Your task to perform on an android device: open app "Facebook Messenger" Image 0: 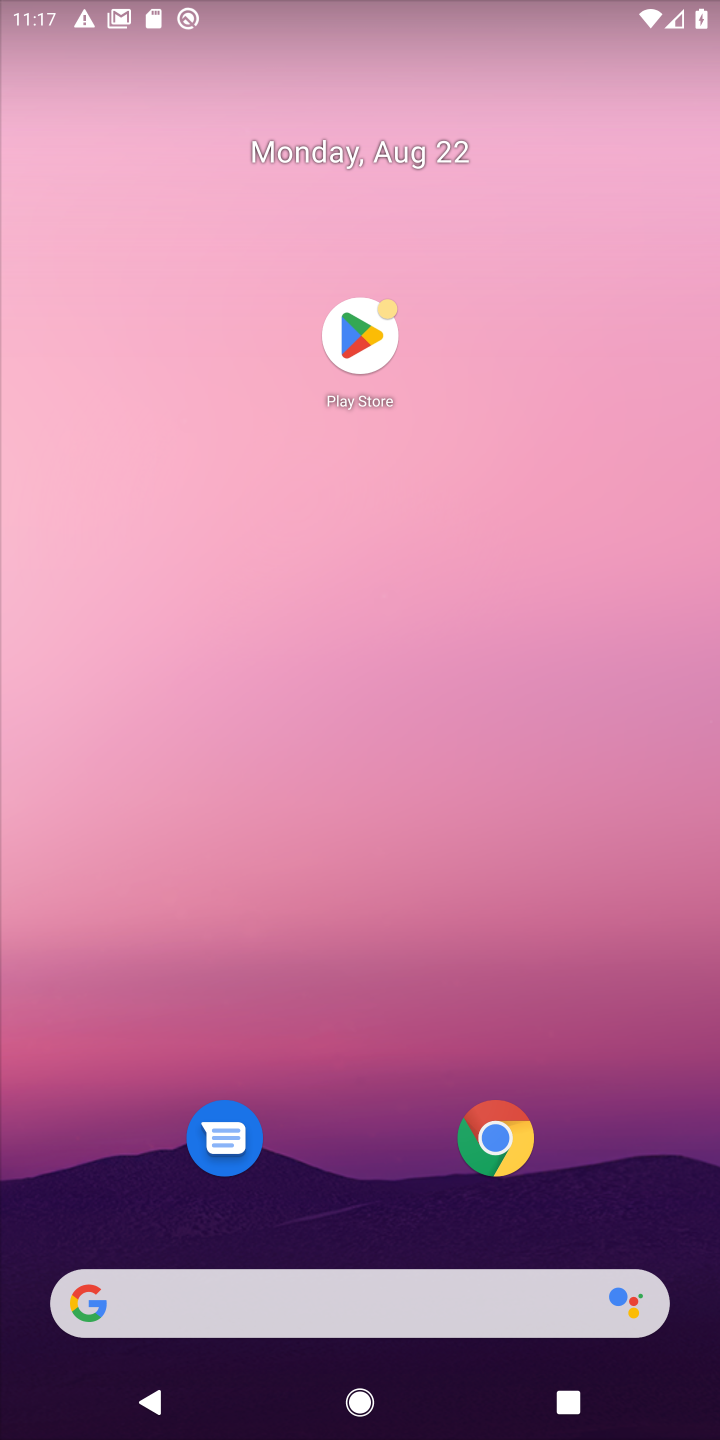
Step 0: click (354, 339)
Your task to perform on an android device: open app "Facebook Messenger" Image 1: 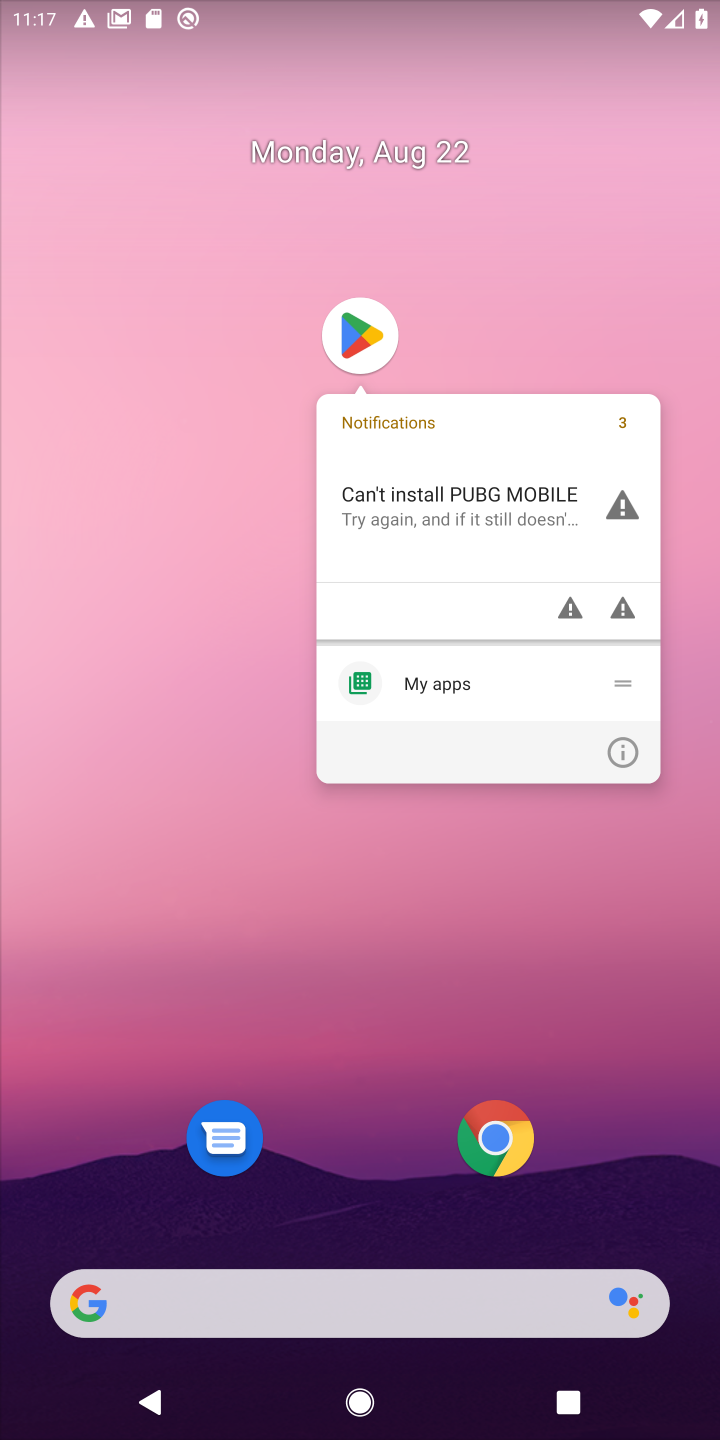
Step 1: click (354, 339)
Your task to perform on an android device: open app "Facebook Messenger" Image 2: 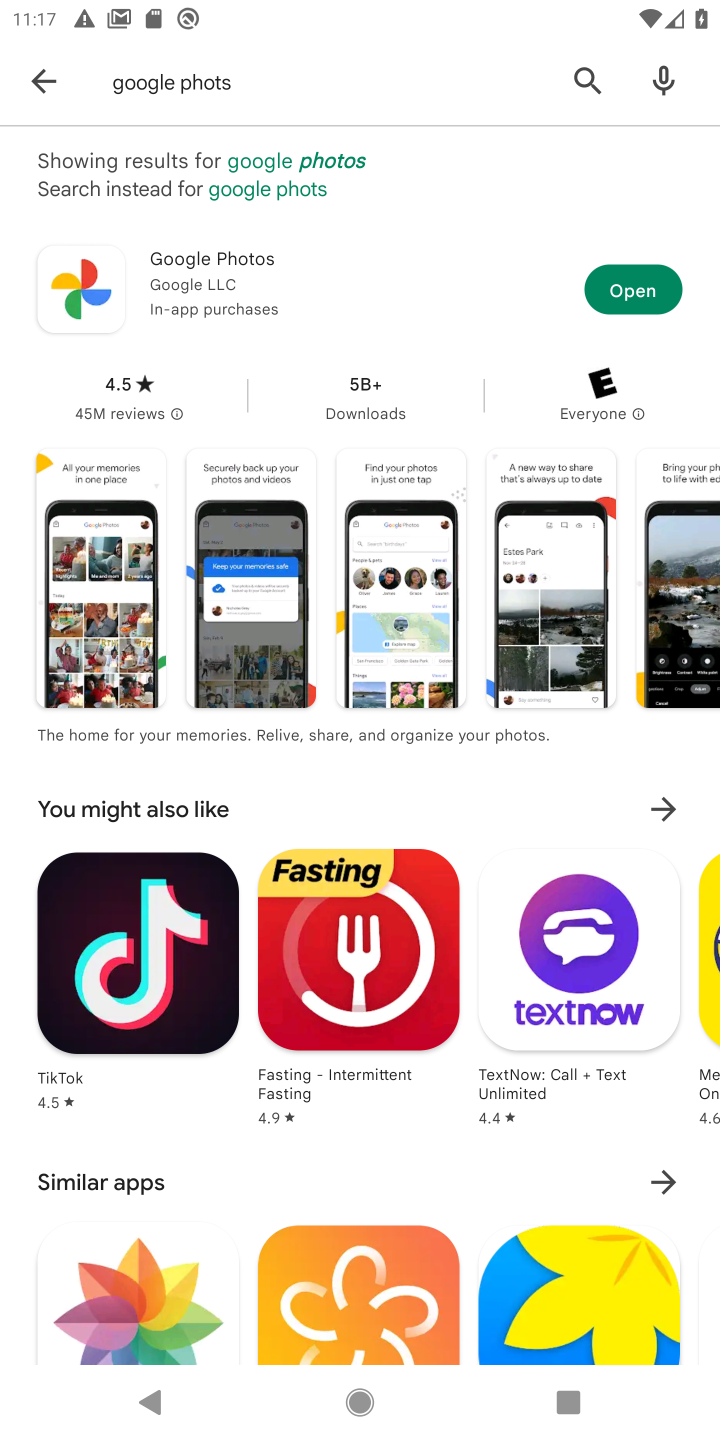
Step 2: click (584, 81)
Your task to perform on an android device: open app "Facebook Messenger" Image 3: 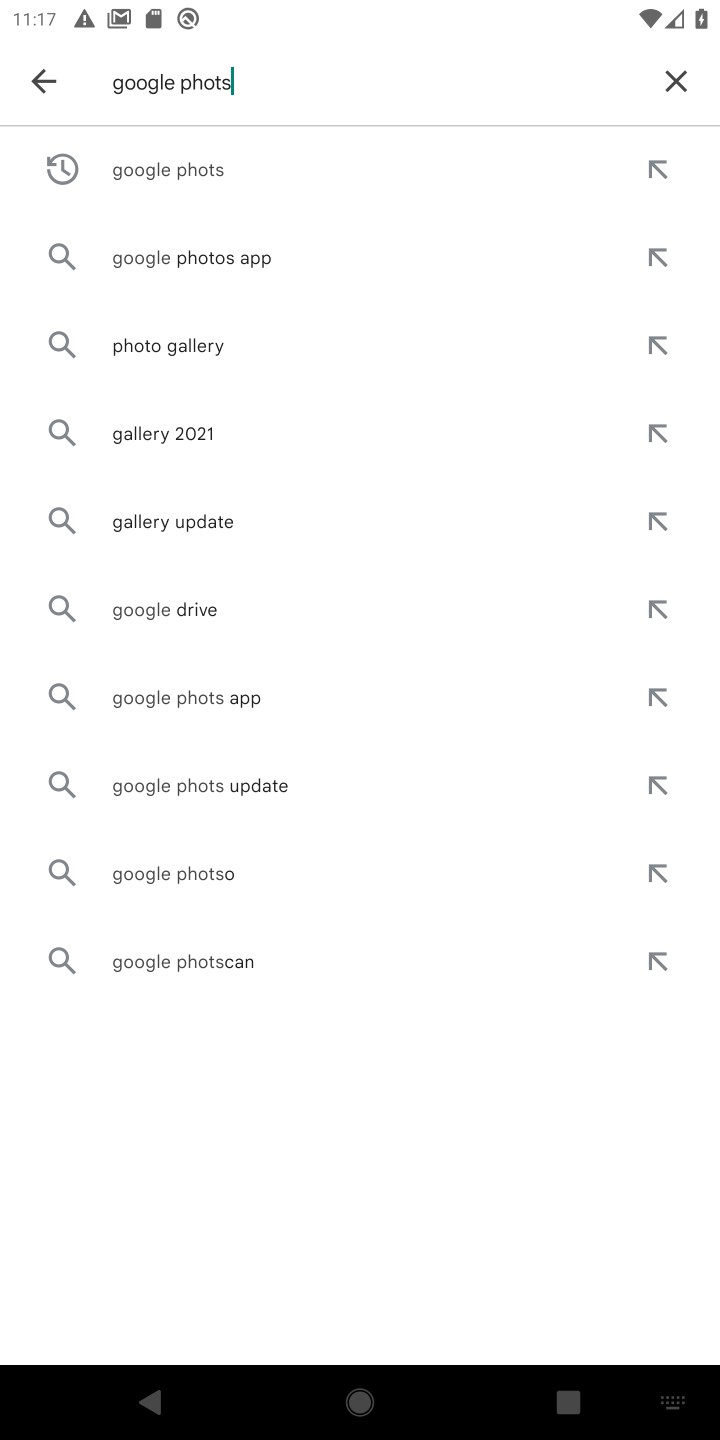
Step 3: click (680, 75)
Your task to perform on an android device: open app "Facebook Messenger" Image 4: 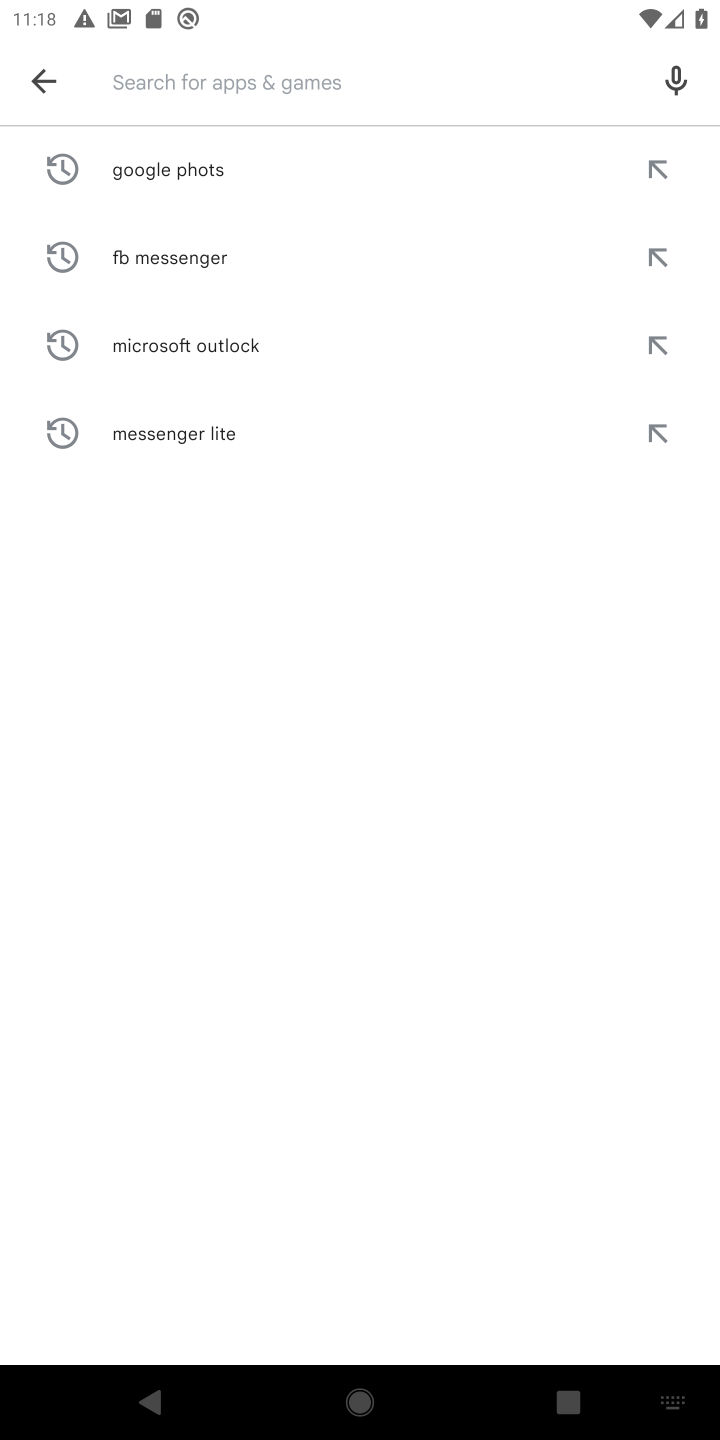
Step 4: type "facebook messenger"
Your task to perform on an android device: open app "Facebook Messenger" Image 5: 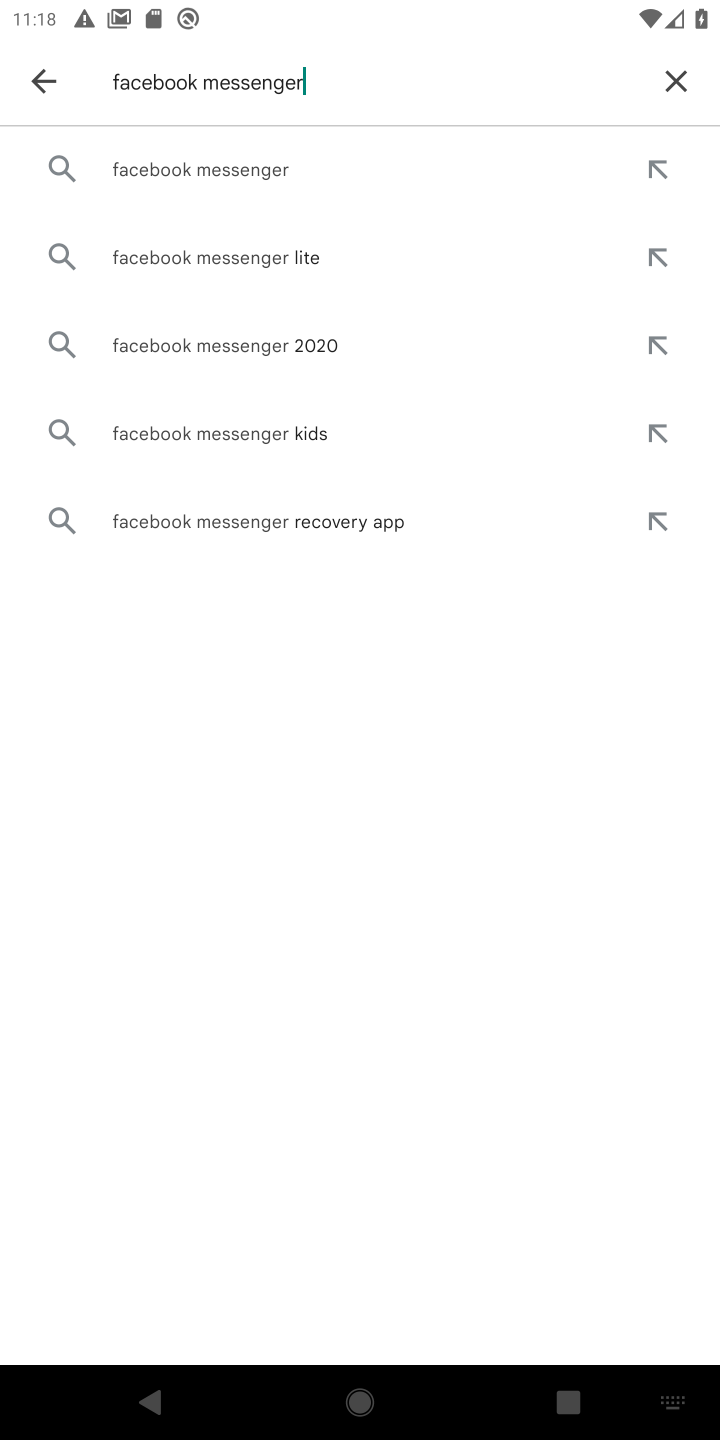
Step 5: click (201, 177)
Your task to perform on an android device: open app "Facebook Messenger" Image 6: 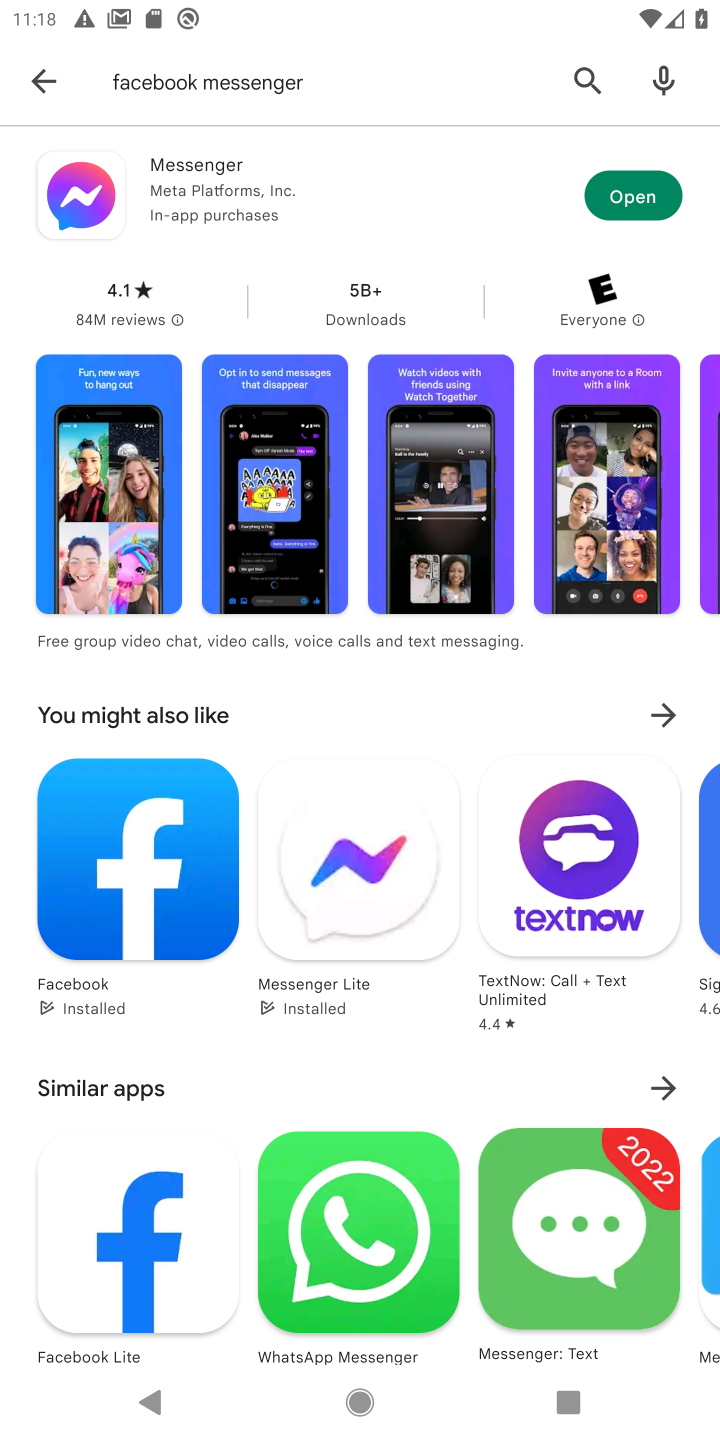
Step 6: click (640, 184)
Your task to perform on an android device: open app "Facebook Messenger" Image 7: 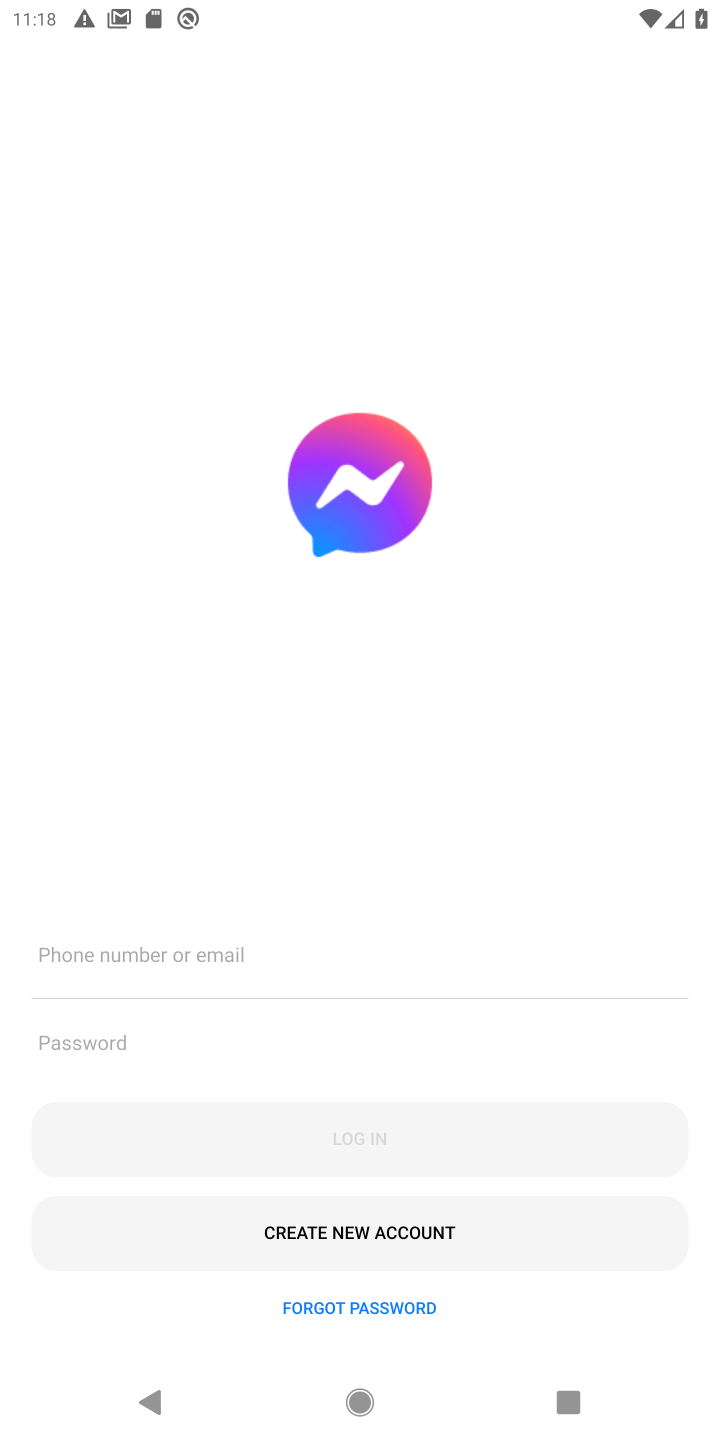
Step 7: task complete